Your task to perform on an android device: change the clock display to digital Image 0: 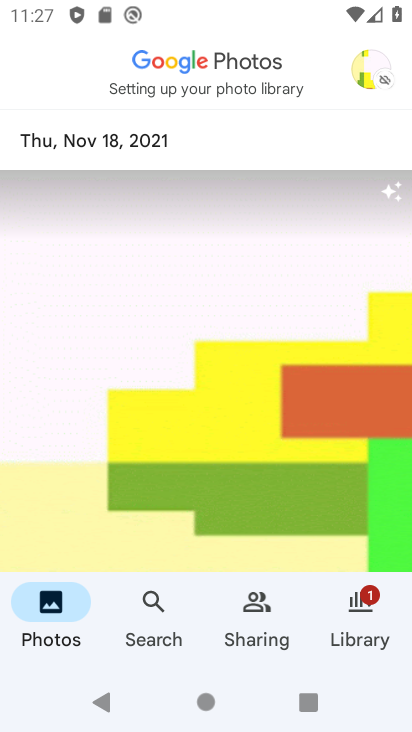
Step 0: press home button
Your task to perform on an android device: change the clock display to digital Image 1: 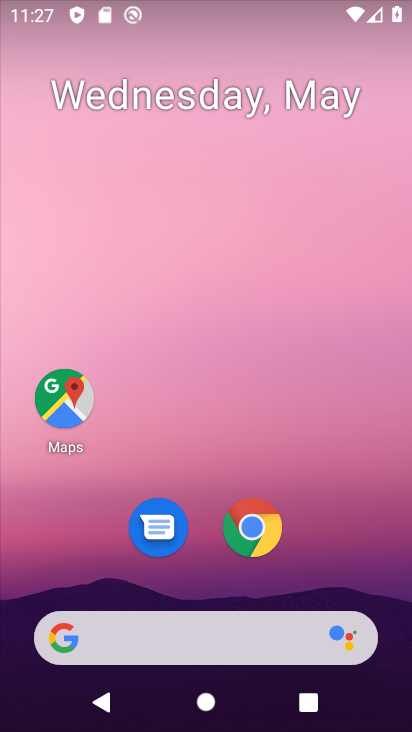
Step 1: drag from (362, 540) to (359, 176)
Your task to perform on an android device: change the clock display to digital Image 2: 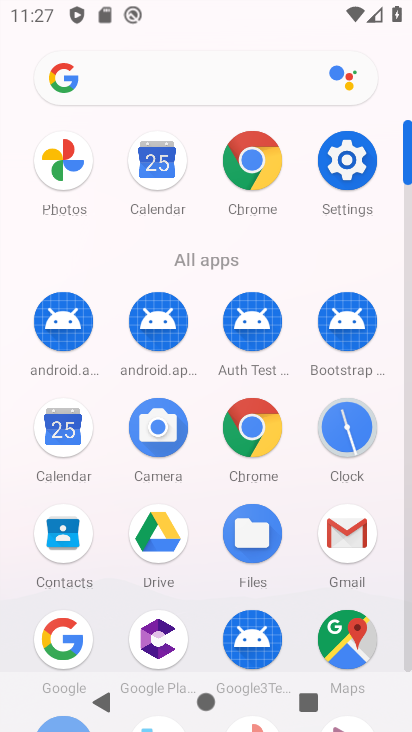
Step 2: click (332, 431)
Your task to perform on an android device: change the clock display to digital Image 3: 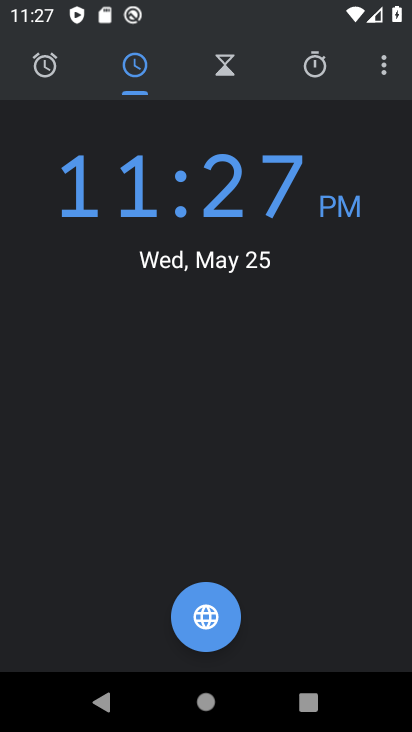
Step 3: click (375, 70)
Your task to perform on an android device: change the clock display to digital Image 4: 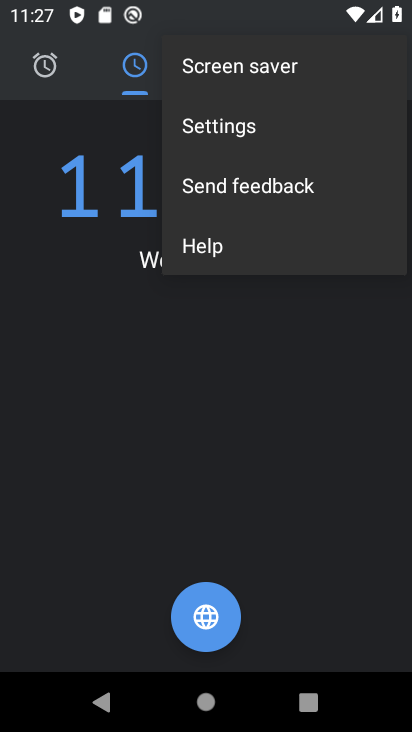
Step 4: click (251, 128)
Your task to perform on an android device: change the clock display to digital Image 5: 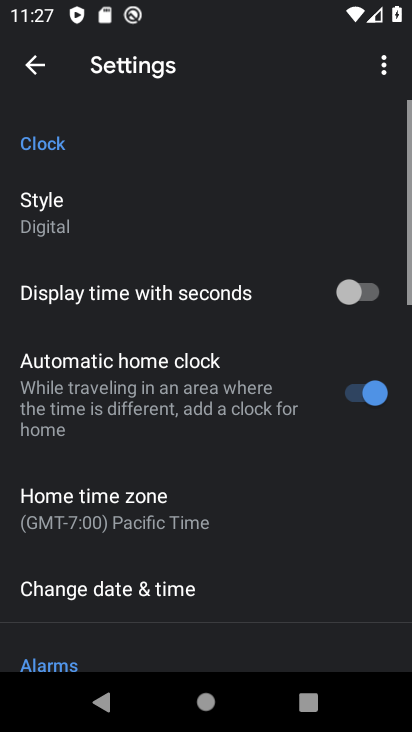
Step 5: click (63, 211)
Your task to perform on an android device: change the clock display to digital Image 6: 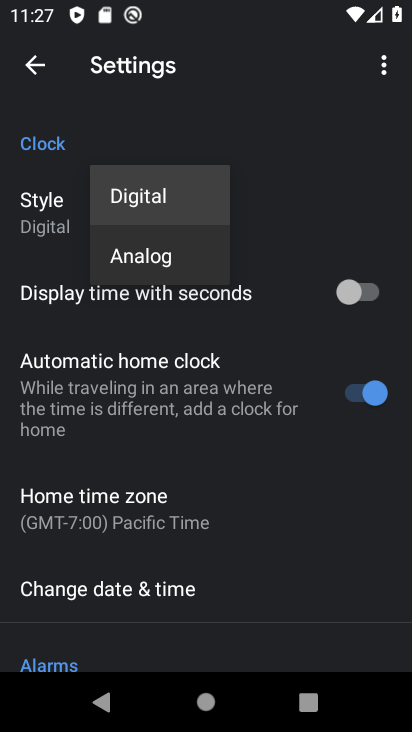
Step 6: click (217, 187)
Your task to perform on an android device: change the clock display to digital Image 7: 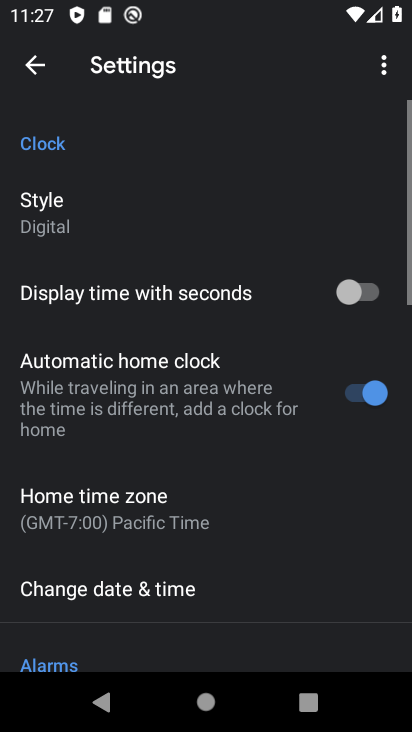
Step 7: task complete